Your task to perform on an android device: Check out the best rated books on Goodreads. Image 0: 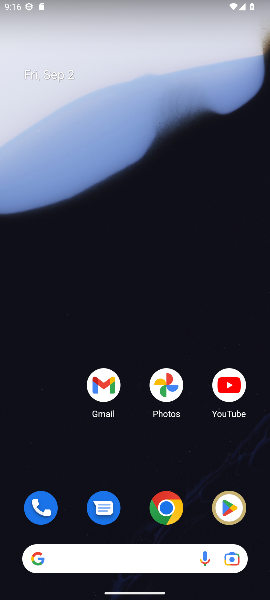
Step 0: drag from (209, 465) to (249, 18)
Your task to perform on an android device: Check out the best rated books on Goodreads. Image 1: 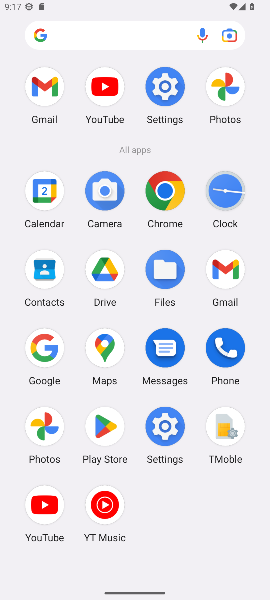
Step 1: click (172, 193)
Your task to perform on an android device: Check out the best rated books on Goodreads. Image 2: 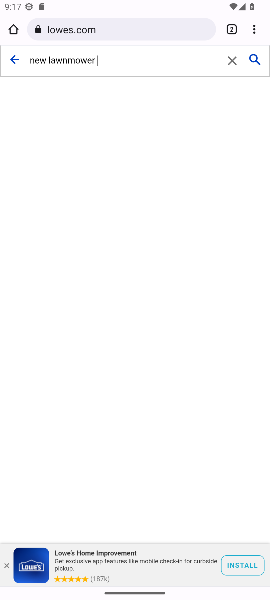
Step 2: click (98, 28)
Your task to perform on an android device: Check out the best rated books on Goodreads. Image 3: 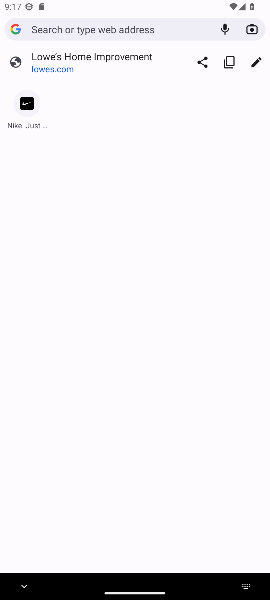
Step 3: type "Goodreads"
Your task to perform on an android device: Check out the best rated books on Goodreads. Image 4: 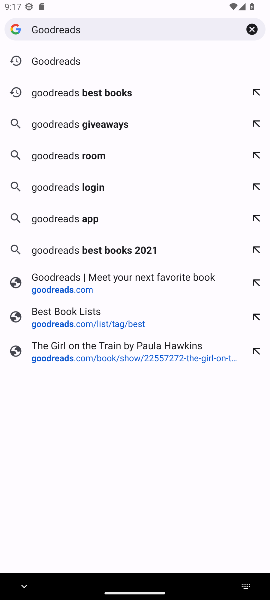
Step 4: click (63, 58)
Your task to perform on an android device: Check out the best rated books on Goodreads. Image 5: 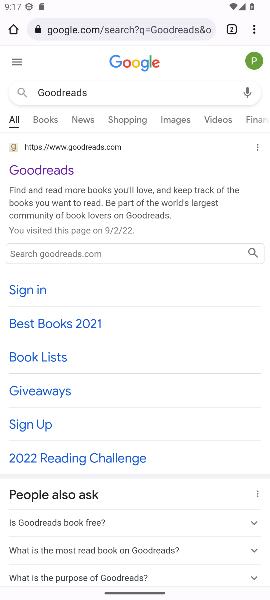
Step 5: click (47, 165)
Your task to perform on an android device: Check out the best rated books on Goodreads. Image 6: 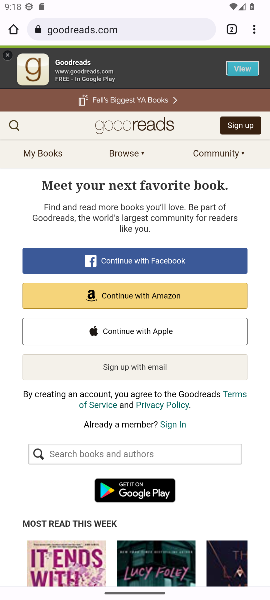
Step 6: task complete